Your task to perform on an android device: Is it going to rain tomorrow? Image 0: 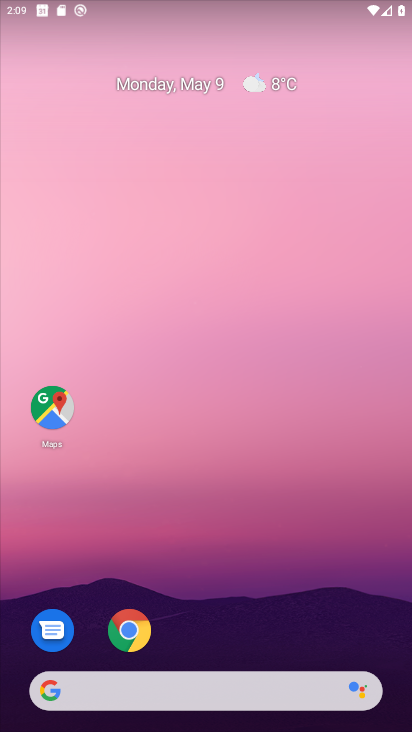
Step 0: click (310, 306)
Your task to perform on an android device: Is it going to rain tomorrow? Image 1: 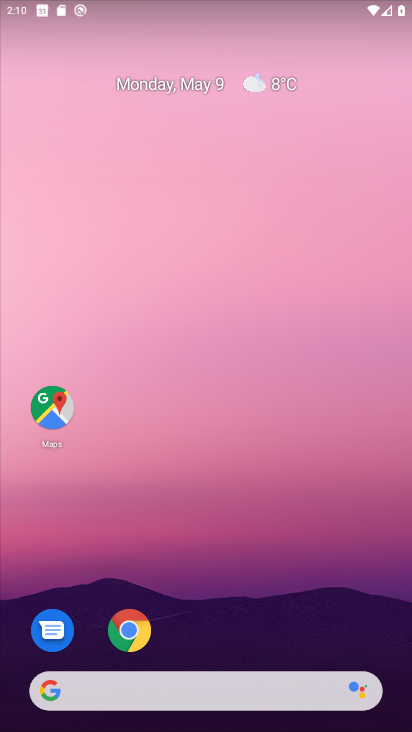
Step 1: click (275, 84)
Your task to perform on an android device: Is it going to rain tomorrow? Image 2: 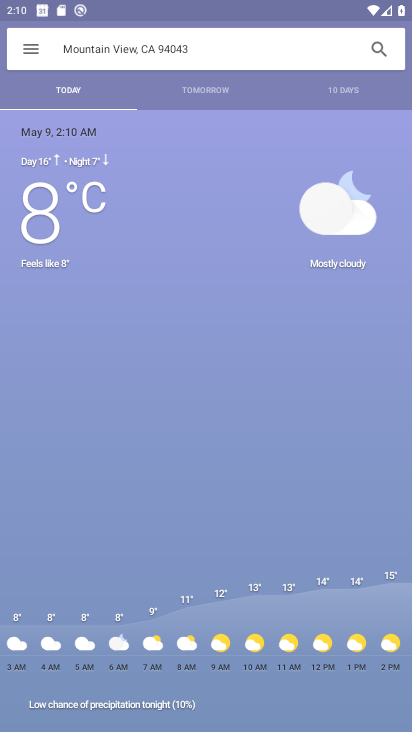
Step 2: click (222, 100)
Your task to perform on an android device: Is it going to rain tomorrow? Image 3: 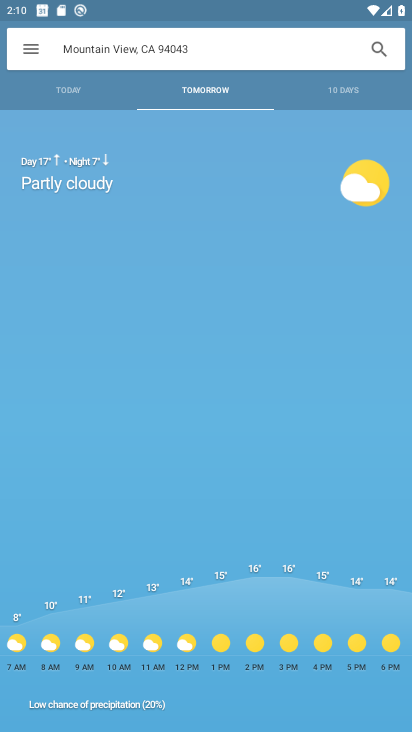
Step 3: task complete